Your task to perform on an android device: show emergency info Image 0: 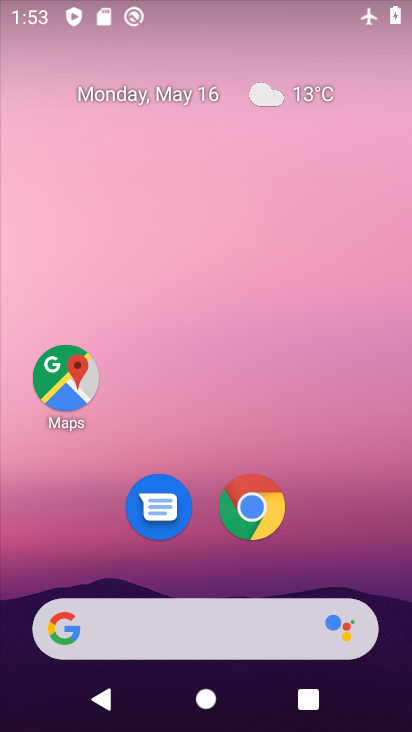
Step 0: drag from (139, 589) to (230, 122)
Your task to perform on an android device: show emergency info Image 1: 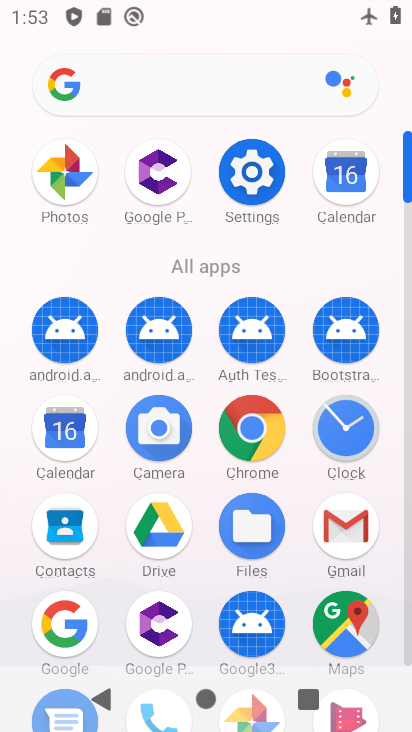
Step 1: drag from (199, 670) to (253, 398)
Your task to perform on an android device: show emergency info Image 2: 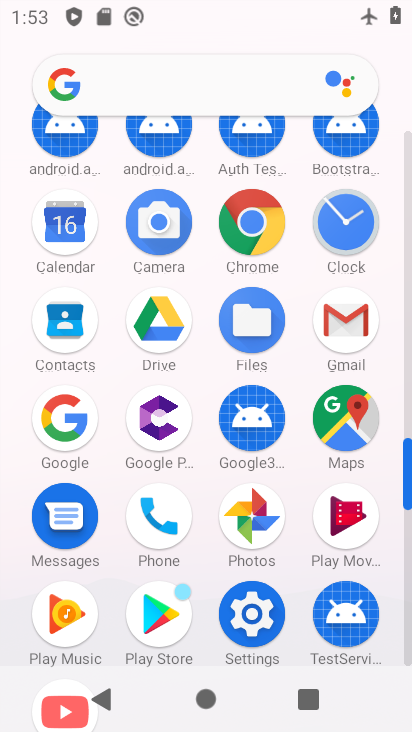
Step 2: click (255, 616)
Your task to perform on an android device: show emergency info Image 3: 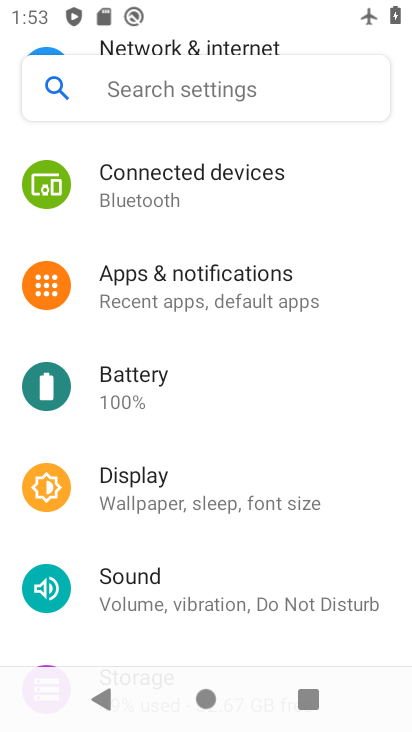
Step 3: drag from (200, 630) to (345, 167)
Your task to perform on an android device: show emergency info Image 4: 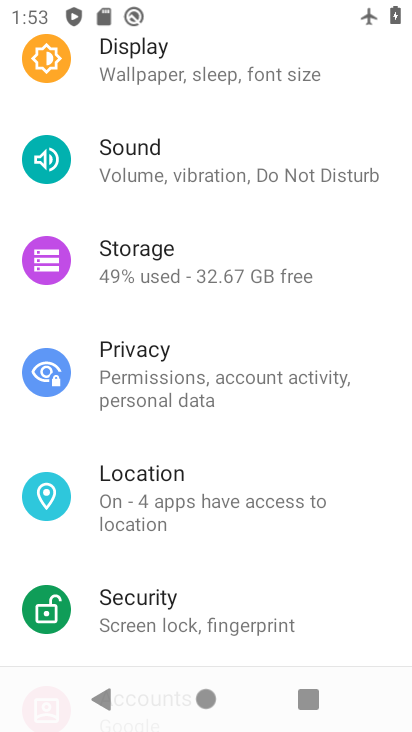
Step 4: drag from (245, 568) to (343, 189)
Your task to perform on an android device: show emergency info Image 5: 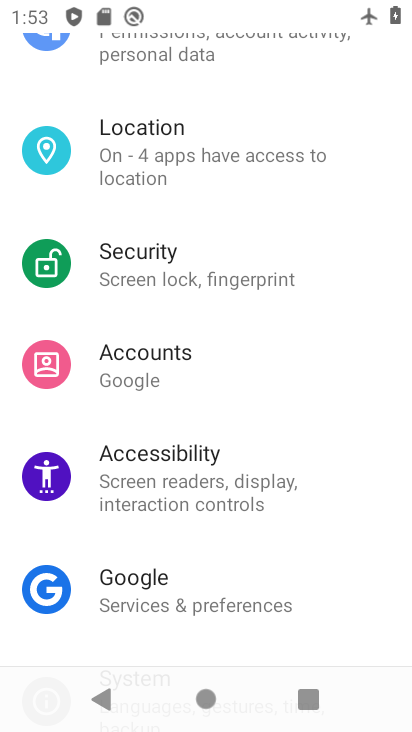
Step 5: drag from (180, 614) to (287, 178)
Your task to perform on an android device: show emergency info Image 6: 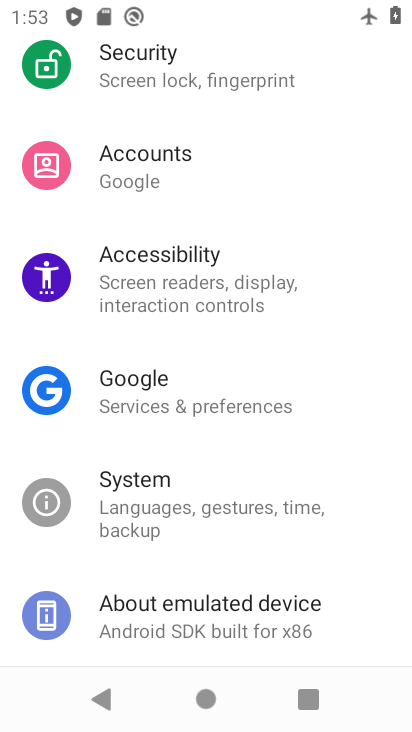
Step 6: drag from (168, 630) to (274, 283)
Your task to perform on an android device: show emergency info Image 7: 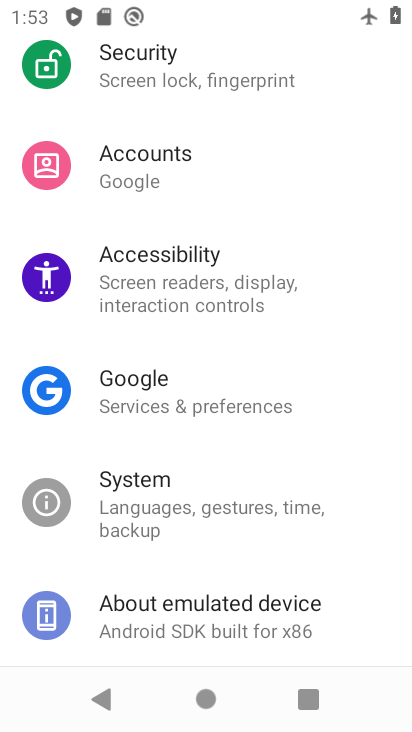
Step 7: click (215, 640)
Your task to perform on an android device: show emergency info Image 8: 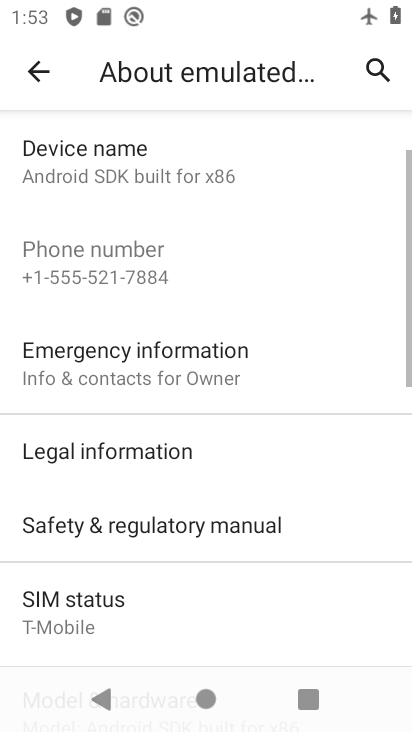
Step 8: click (239, 385)
Your task to perform on an android device: show emergency info Image 9: 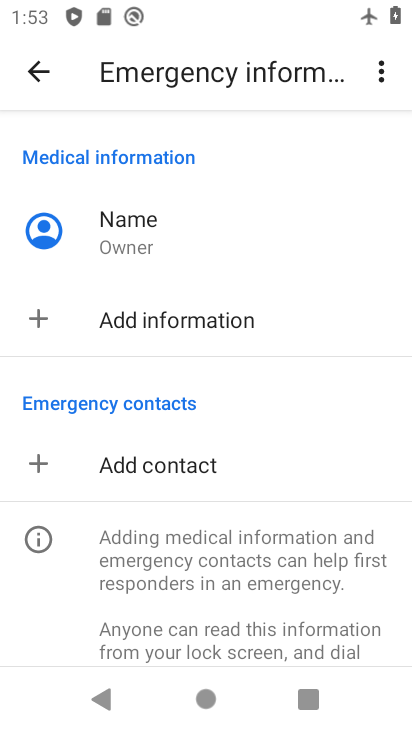
Step 9: task complete